Your task to perform on an android device: change the clock style Image 0: 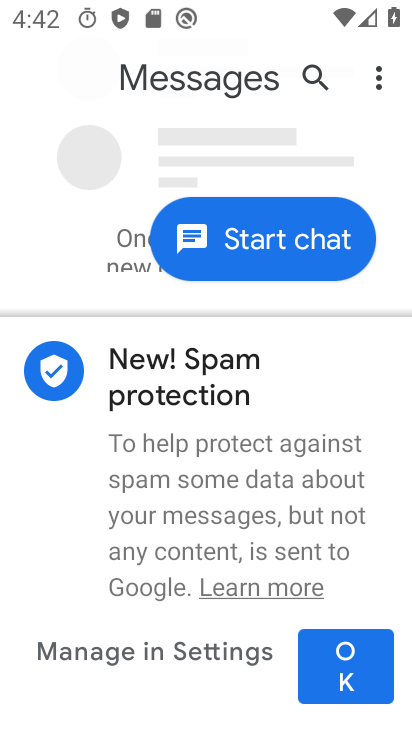
Step 0: press home button
Your task to perform on an android device: change the clock style Image 1: 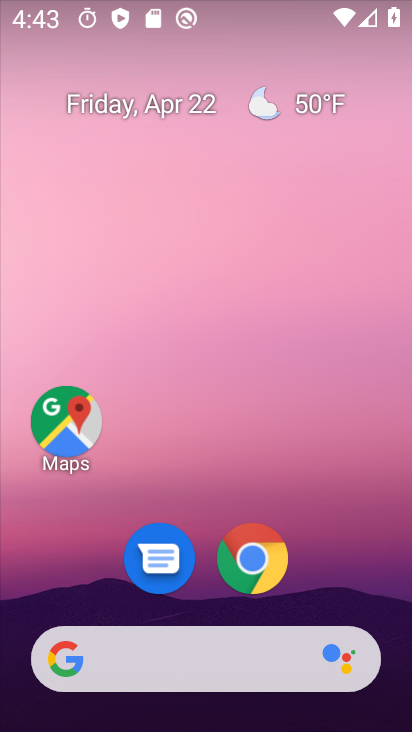
Step 1: drag from (343, 509) to (329, 166)
Your task to perform on an android device: change the clock style Image 2: 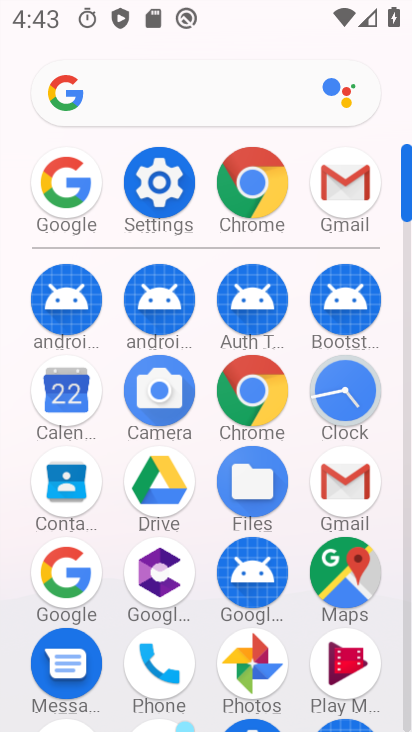
Step 2: click (326, 404)
Your task to perform on an android device: change the clock style Image 3: 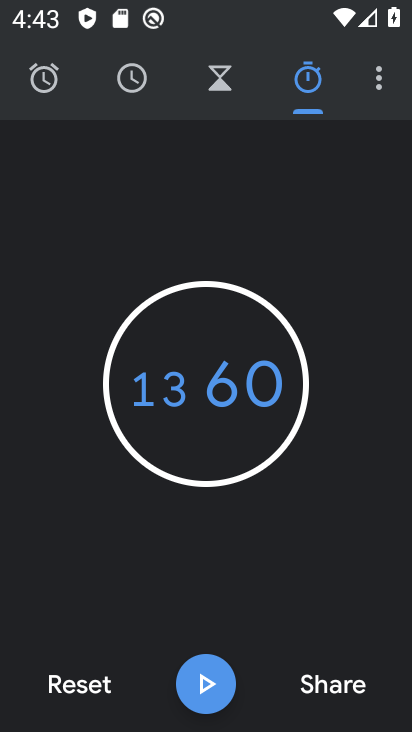
Step 3: click (383, 86)
Your task to perform on an android device: change the clock style Image 4: 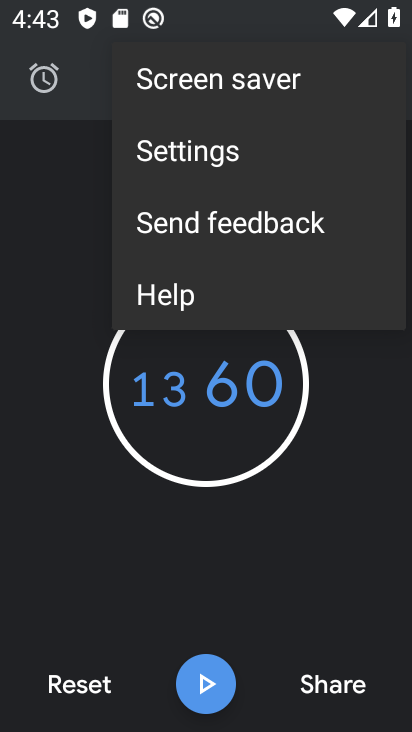
Step 4: click (230, 143)
Your task to perform on an android device: change the clock style Image 5: 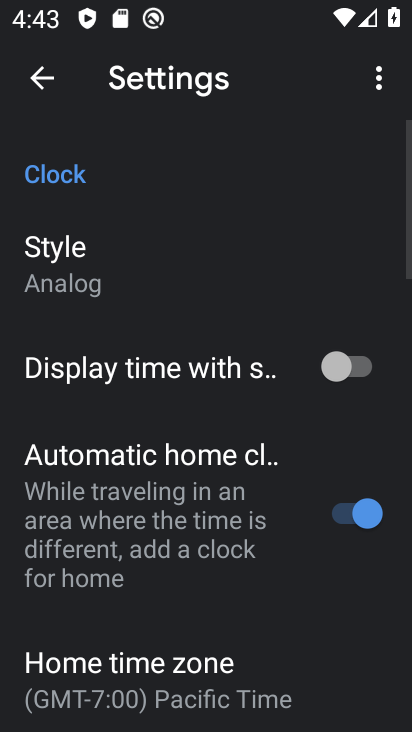
Step 5: click (65, 276)
Your task to perform on an android device: change the clock style Image 6: 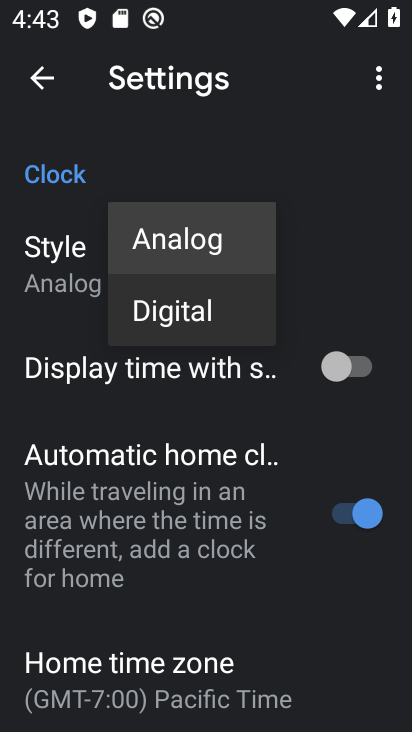
Step 6: click (171, 305)
Your task to perform on an android device: change the clock style Image 7: 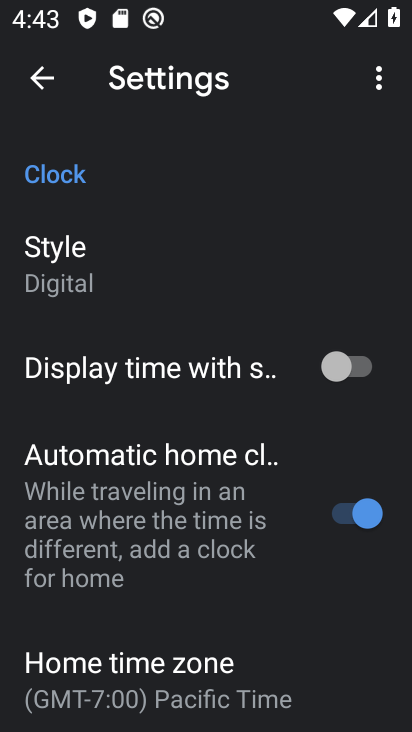
Step 7: task complete